Your task to perform on an android device: check the backup settings in the google photos Image 0: 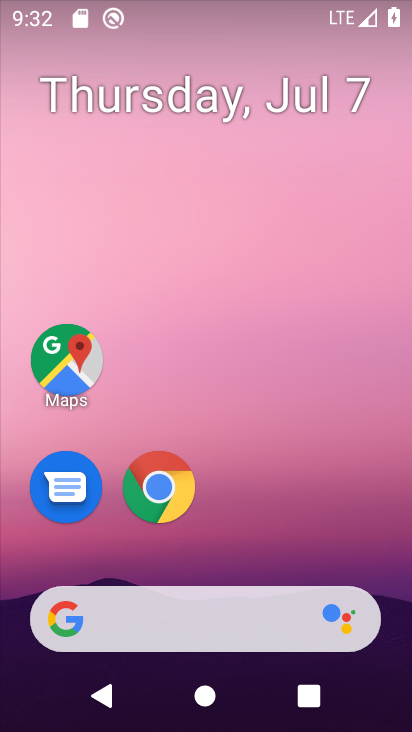
Step 0: drag from (345, 552) to (360, 135)
Your task to perform on an android device: check the backup settings in the google photos Image 1: 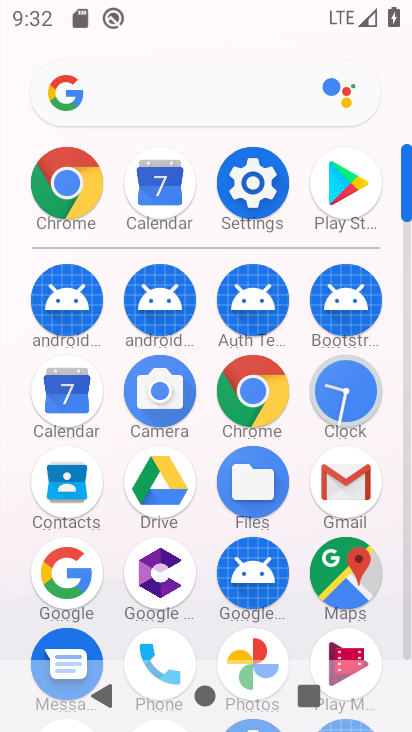
Step 1: drag from (383, 440) to (383, 233)
Your task to perform on an android device: check the backup settings in the google photos Image 2: 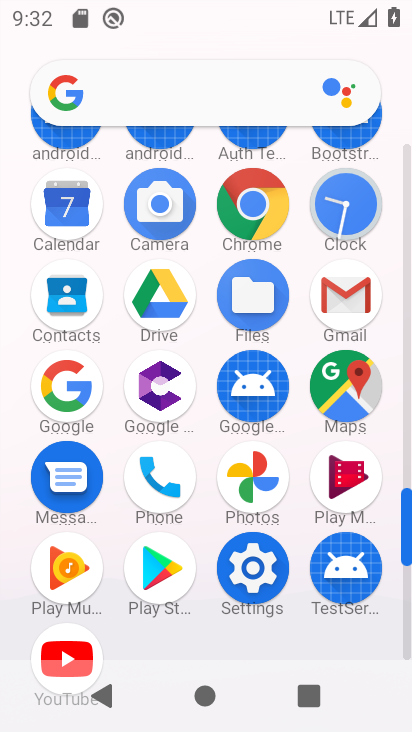
Step 2: click (256, 483)
Your task to perform on an android device: check the backup settings in the google photos Image 3: 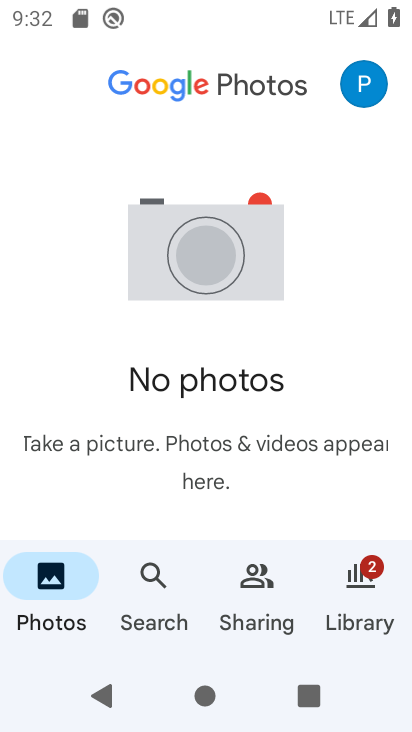
Step 3: click (364, 94)
Your task to perform on an android device: check the backup settings in the google photos Image 4: 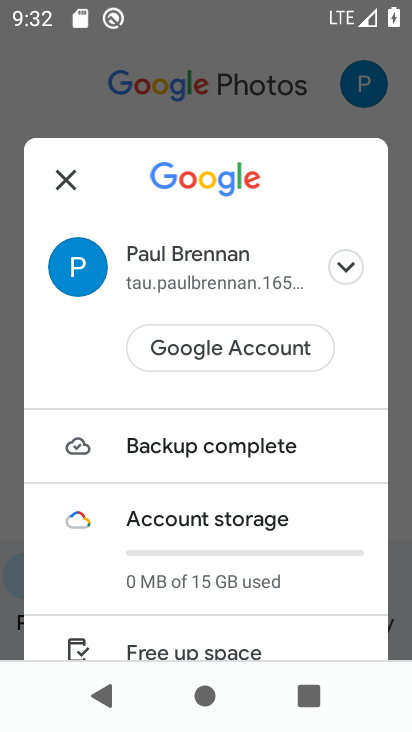
Step 4: drag from (341, 400) to (343, 264)
Your task to perform on an android device: check the backup settings in the google photos Image 5: 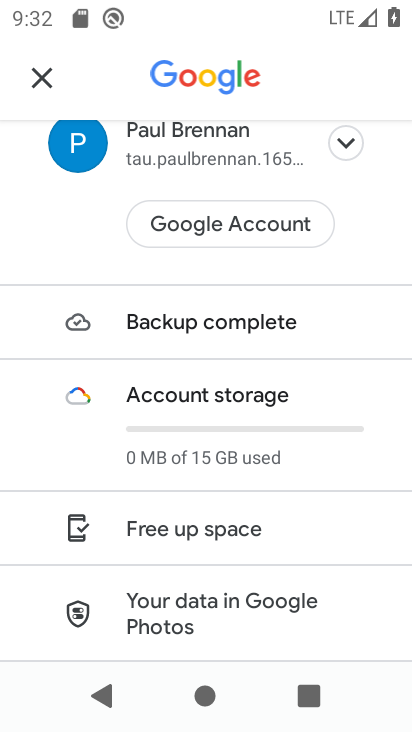
Step 5: drag from (329, 461) to (338, 334)
Your task to perform on an android device: check the backup settings in the google photos Image 6: 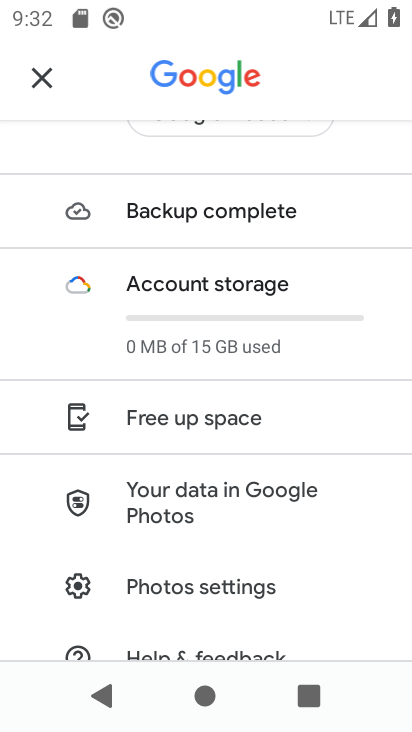
Step 6: drag from (320, 531) to (339, 262)
Your task to perform on an android device: check the backup settings in the google photos Image 7: 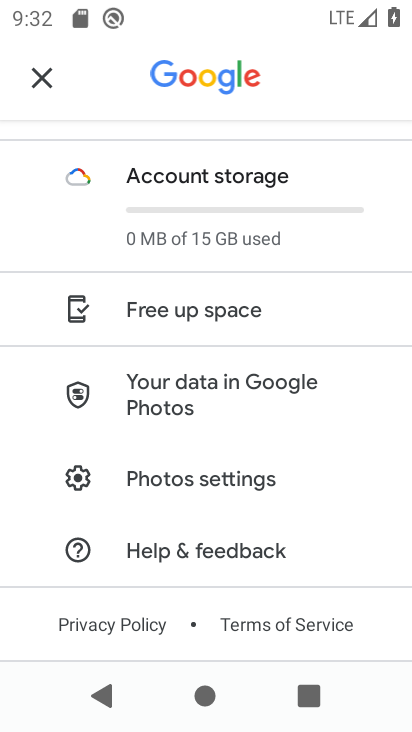
Step 7: click (279, 473)
Your task to perform on an android device: check the backup settings in the google photos Image 8: 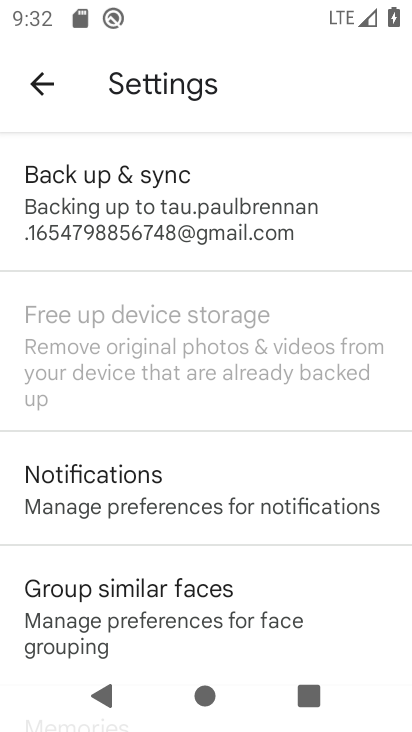
Step 8: click (250, 225)
Your task to perform on an android device: check the backup settings in the google photos Image 9: 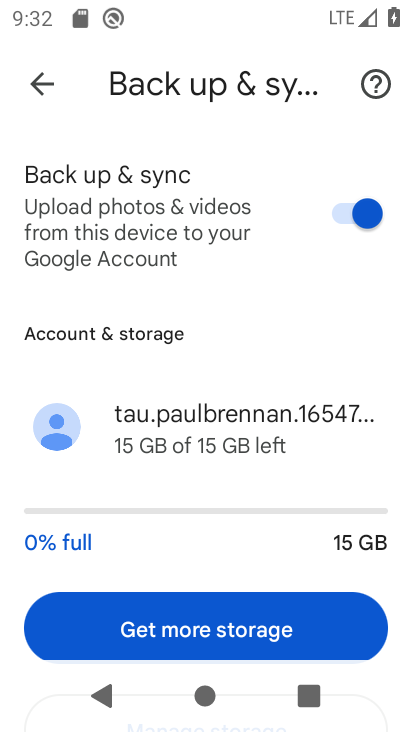
Step 9: task complete